Your task to perform on an android device: open sync settings in chrome Image 0: 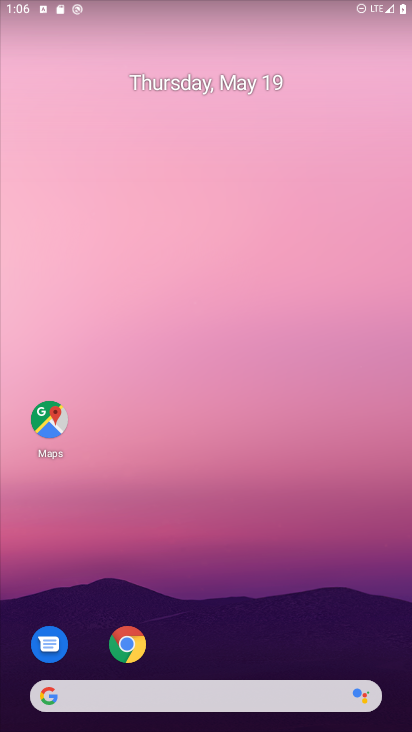
Step 0: drag from (373, 627) to (127, 112)
Your task to perform on an android device: open sync settings in chrome Image 1: 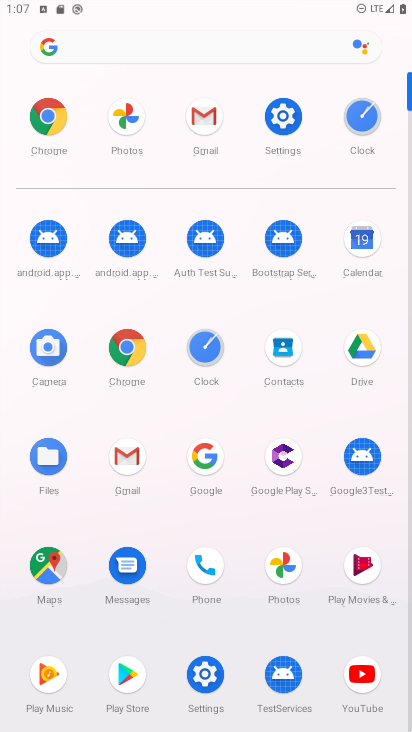
Step 1: click (133, 353)
Your task to perform on an android device: open sync settings in chrome Image 2: 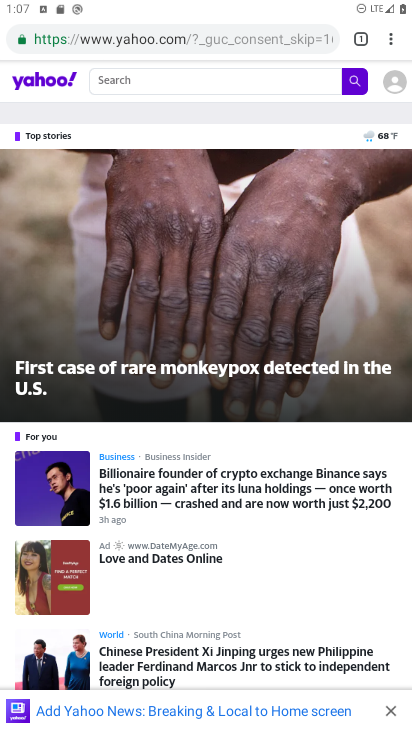
Step 2: press back button
Your task to perform on an android device: open sync settings in chrome Image 3: 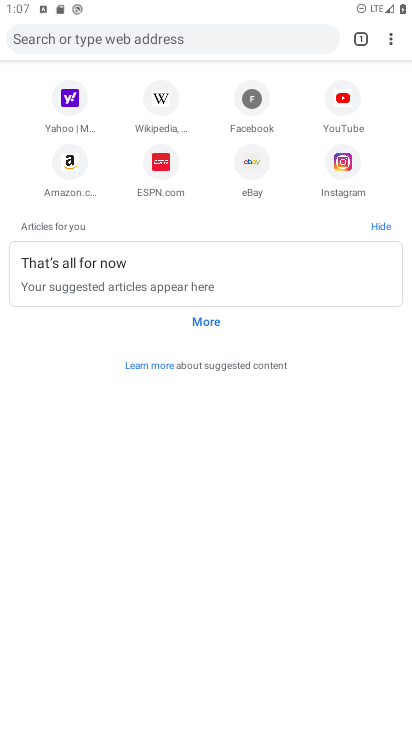
Step 3: click (386, 39)
Your task to perform on an android device: open sync settings in chrome Image 4: 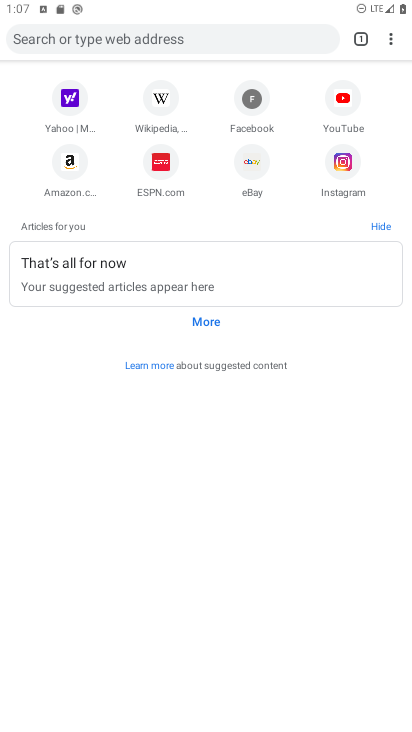
Step 4: click (393, 35)
Your task to perform on an android device: open sync settings in chrome Image 5: 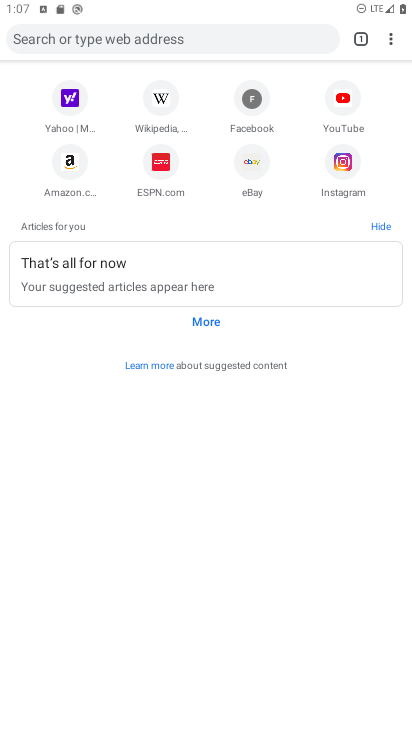
Step 5: click (389, 35)
Your task to perform on an android device: open sync settings in chrome Image 6: 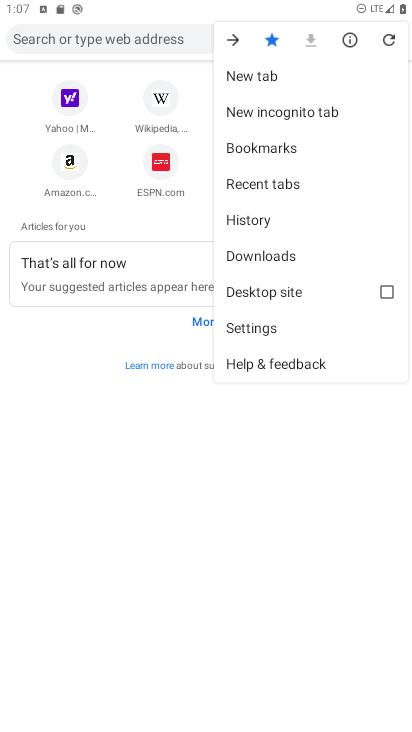
Step 6: click (263, 324)
Your task to perform on an android device: open sync settings in chrome Image 7: 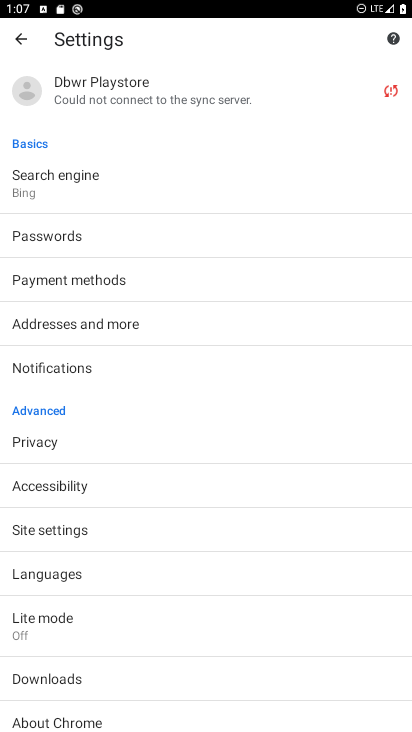
Step 7: click (113, 535)
Your task to perform on an android device: open sync settings in chrome Image 8: 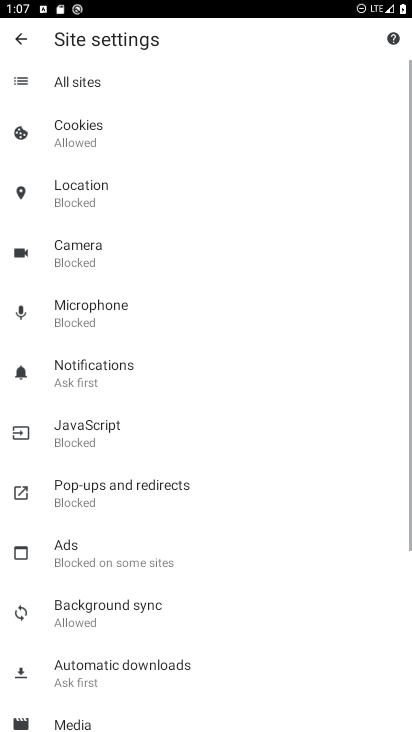
Step 8: drag from (116, 673) to (137, 240)
Your task to perform on an android device: open sync settings in chrome Image 9: 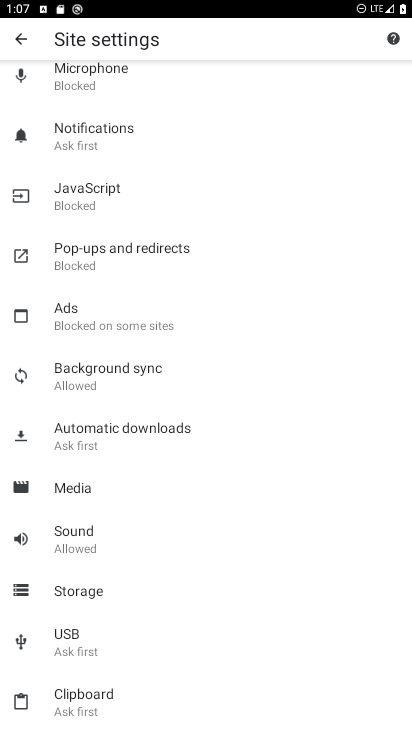
Step 9: click (140, 354)
Your task to perform on an android device: open sync settings in chrome Image 10: 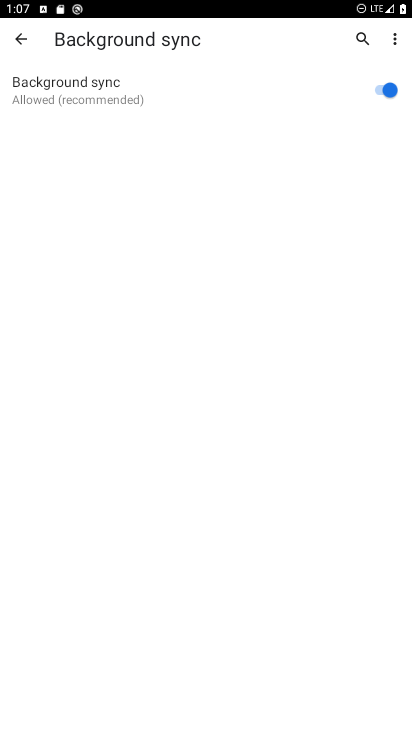
Step 10: task complete